Your task to perform on an android device: toggle translation in the chrome app Image 0: 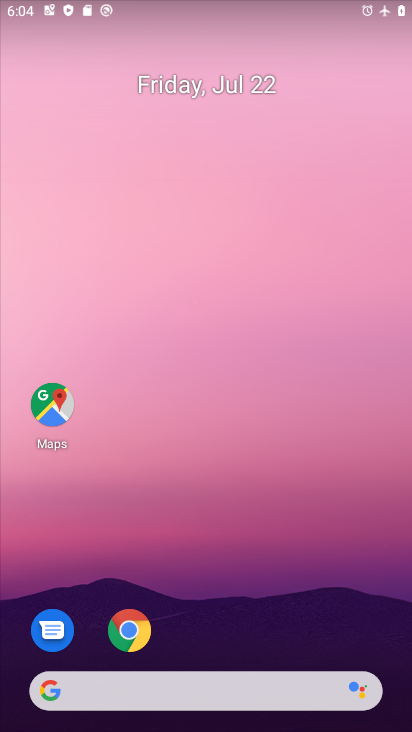
Step 0: drag from (328, 636) to (273, 11)
Your task to perform on an android device: toggle translation in the chrome app Image 1: 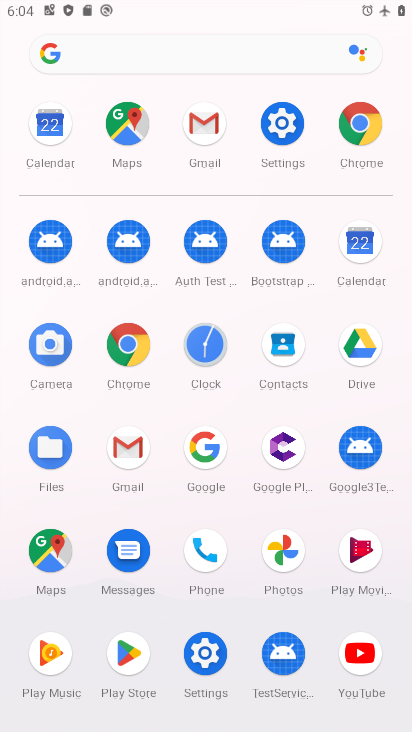
Step 1: click (137, 340)
Your task to perform on an android device: toggle translation in the chrome app Image 2: 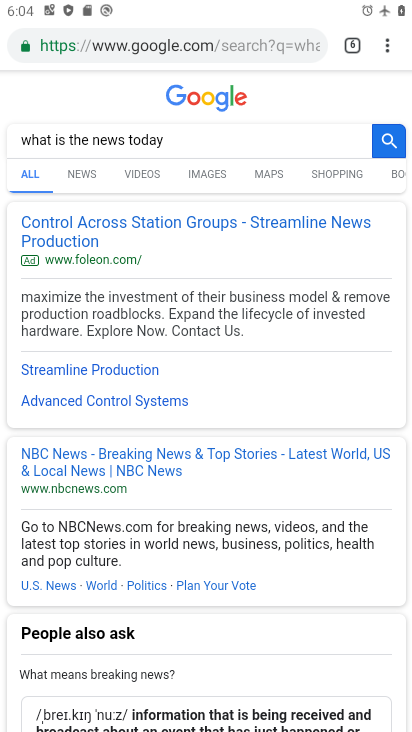
Step 2: drag from (389, 48) to (253, 506)
Your task to perform on an android device: toggle translation in the chrome app Image 3: 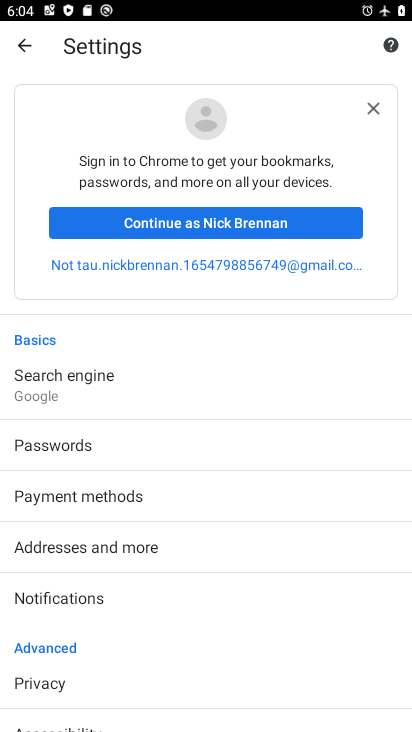
Step 3: drag from (166, 528) to (196, 303)
Your task to perform on an android device: toggle translation in the chrome app Image 4: 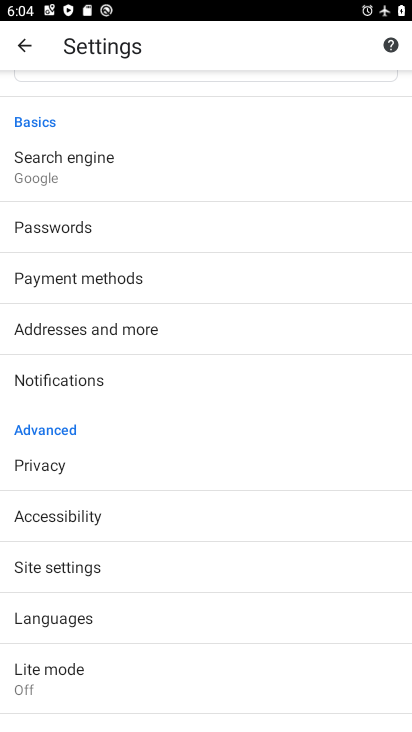
Step 4: click (75, 610)
Your task to perform on an android device: toggle translation in the chrome app Image 5: 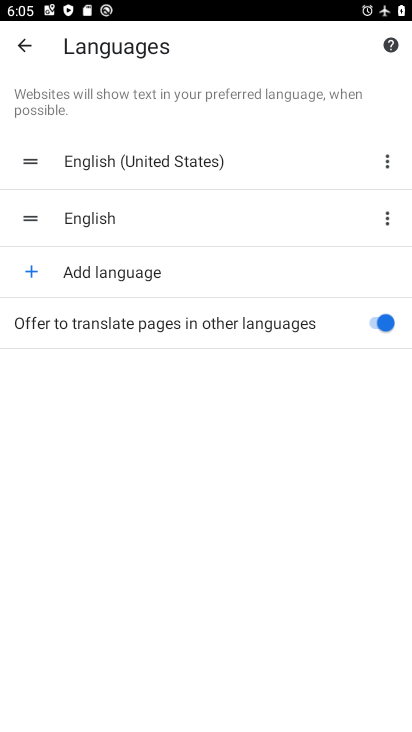
Step 5: task complete